Your task to perform on an android device: turn on sleep mode Image 0: 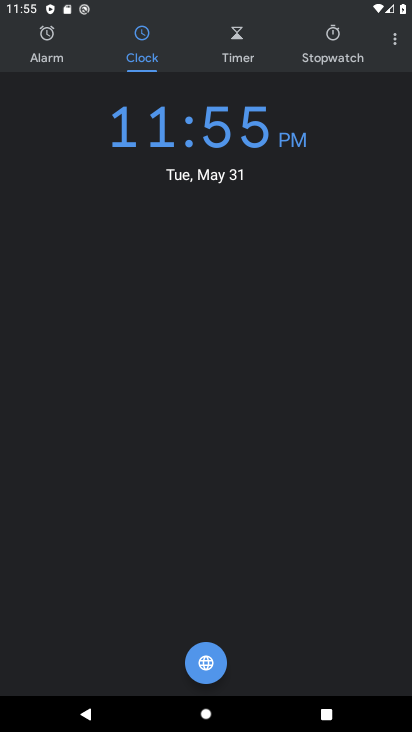
Step 0: press home button
Your task to perform on an android device: turn on sleep mode Image 1: 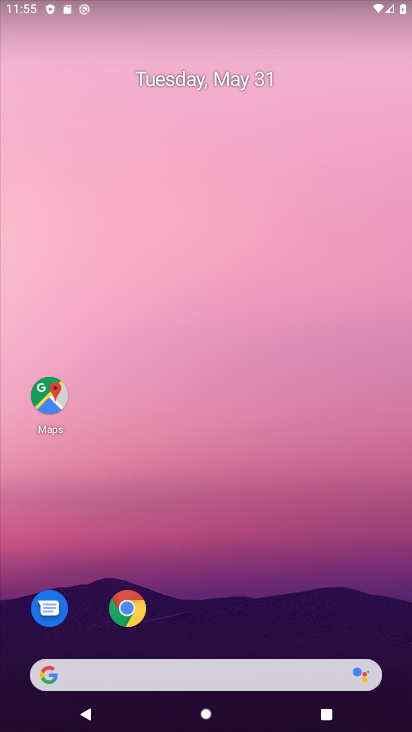
Step 1: drag from (208, 612) to (251, 158)
Your task to perform on an android device: turn on sleep mode Image 2: 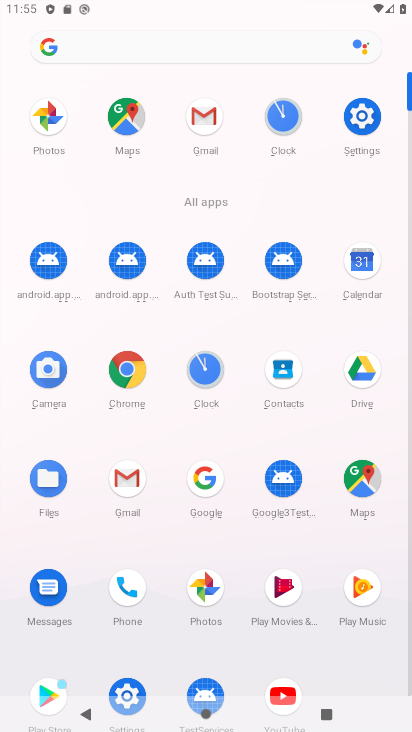
Step 2: click (368, 148)
Your task to perform on an android device: turn on sleep mode Image 3: 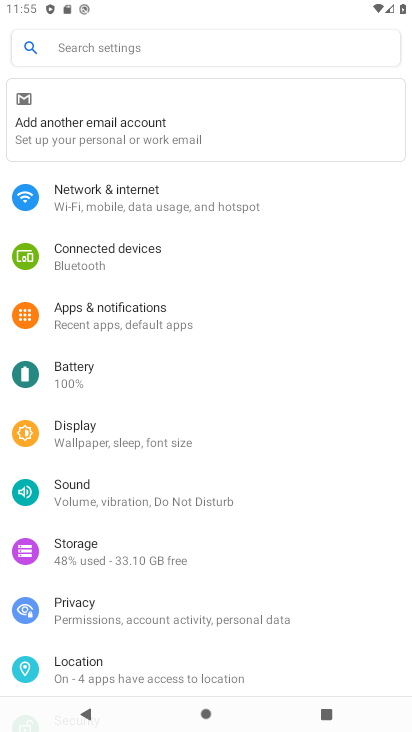
Step 3: click (238, 45)
Your task to perform on an android device: turn on sleep mode Image 4: 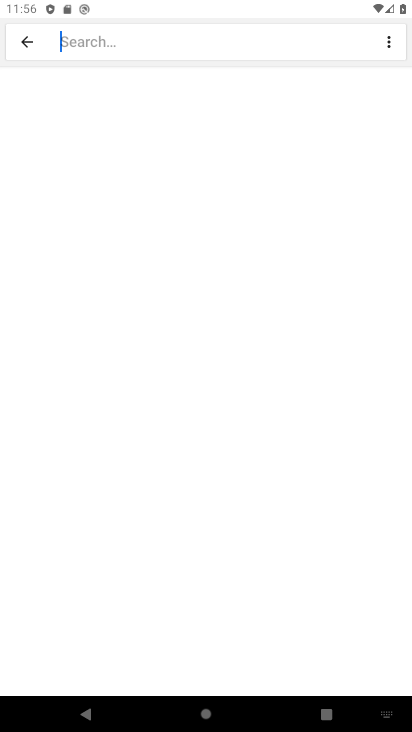
Step 4: type "sleep mode"
Your task to perform on an android device: turn on sleep mode Image 5: 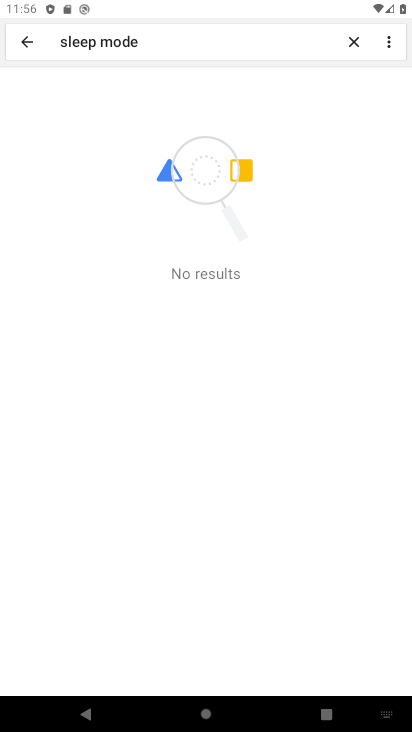
Step 5: click (216, 204)
Your task to perform on an android device: turn on sleep mode Image 6: 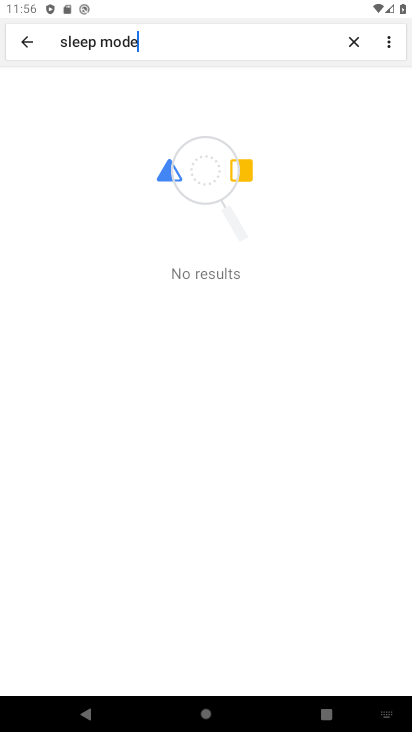
Step 6: task complete